Your task to perform on an android device: Open Reddit.com Image 0: 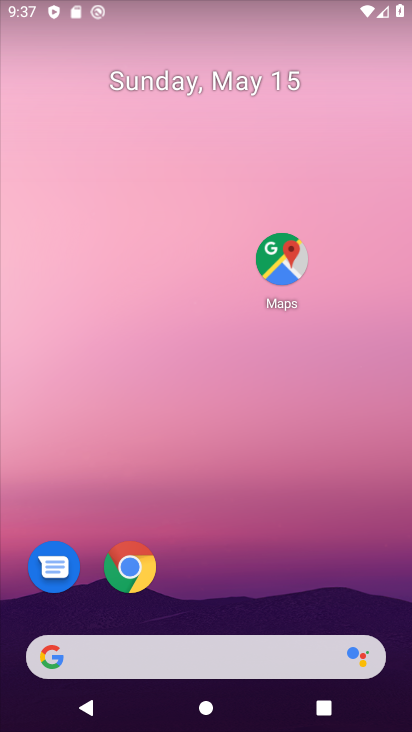
Step 0: drag from (249, 424) to (272, 78)
Your task to perform on an android device: Open Reddit.com Image 1: 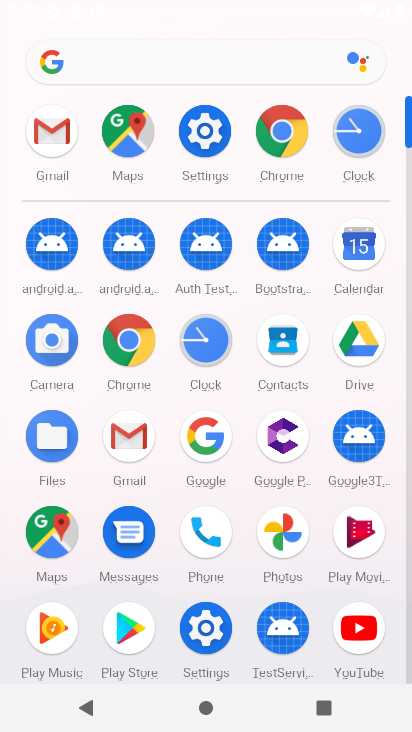
Step 1: click (210, 437)
Your task to perform on an android device: Open Reddit.com Image 2: 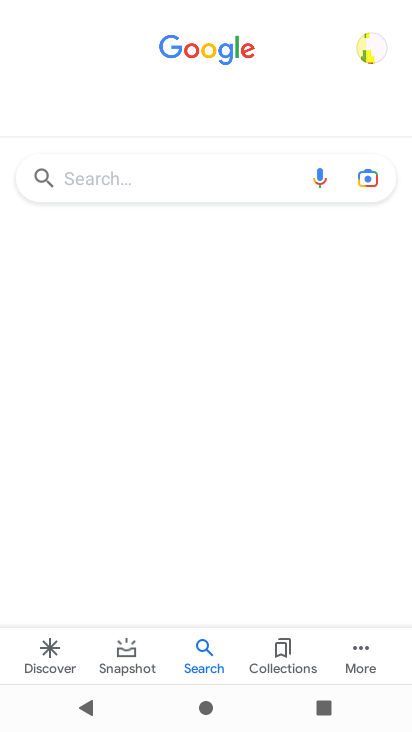
Step 2: click (161, 167)
Your task to perform on an android device: Open Reddit.com Image 3: 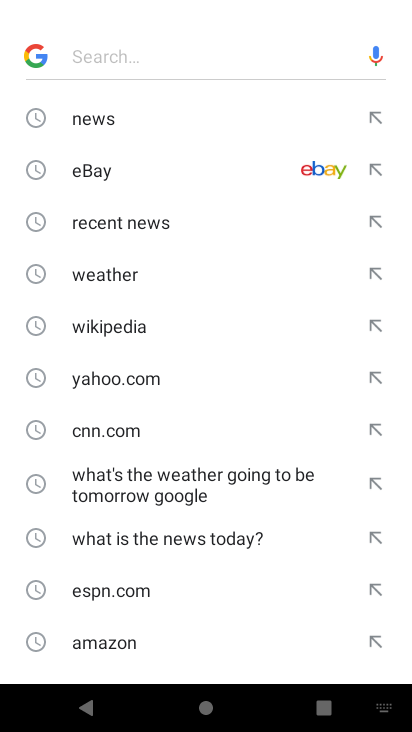
Step 3: drag from (152, 604) to (159, 201)
Your task to perform on an android device: Open Reddit.com Image 4: 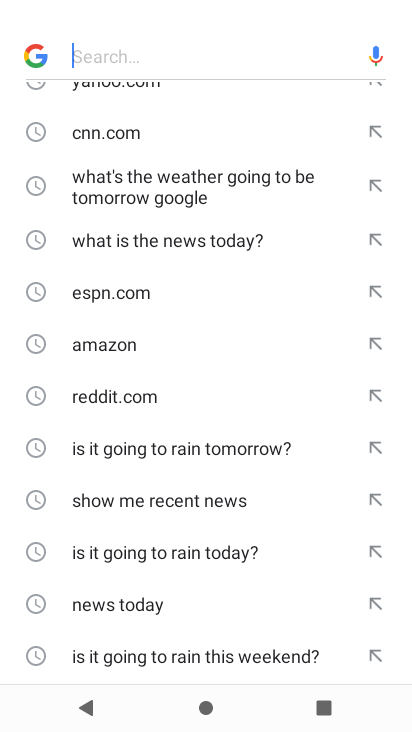
Step 4: click (114, 398)
Your task to perform on an android device: Open Reddit.com Image 5: 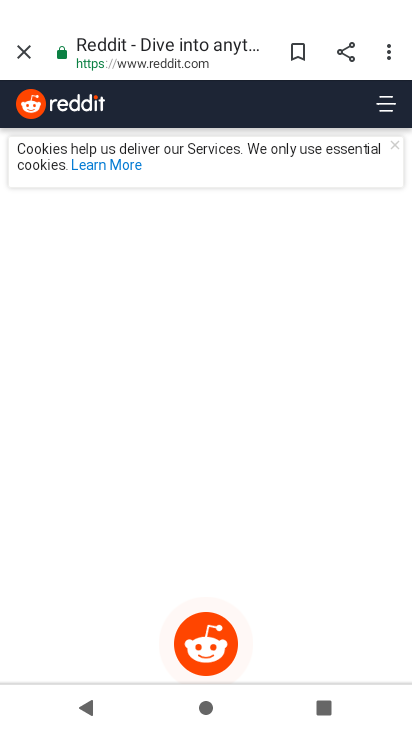
Step 5: task complete